Your task to perform on an android device: Go to privacy settings Image 0: 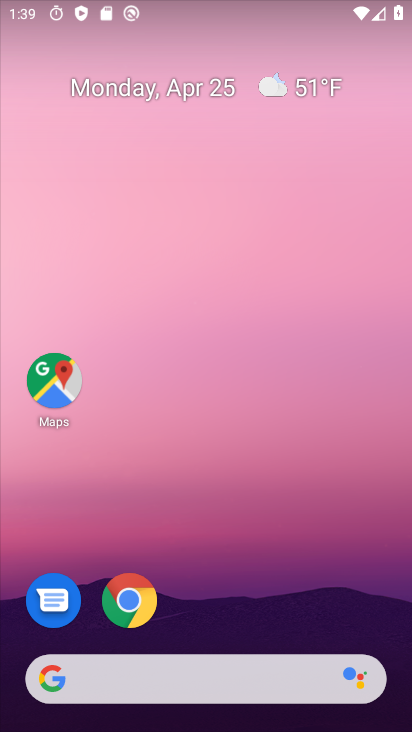
Step 0: drag from (145, 665) to (238, 145)
Your task to perform on an android device: Go to privacy settings Image 1: 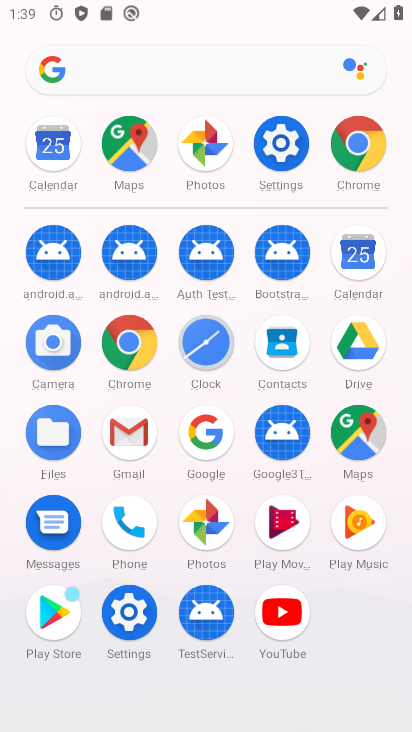
Step 1: click (281, 154)
Your task to perform on an android device: Go to privacy settings Image 2: 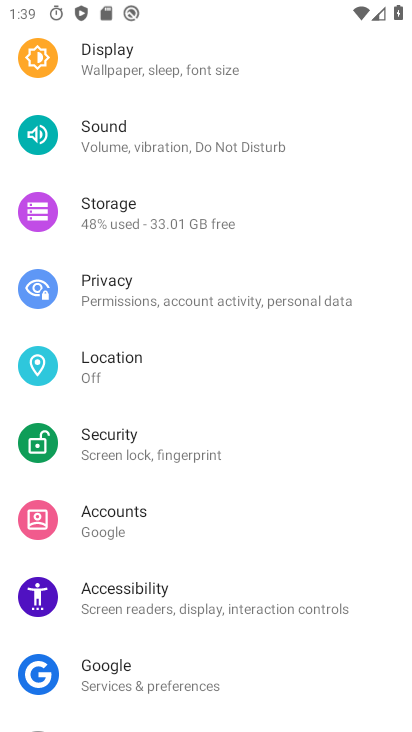
Step 2: drag from (193, 530) to (265, 137)
Your task to perform on an android device: Go to privacy settings Image 3: 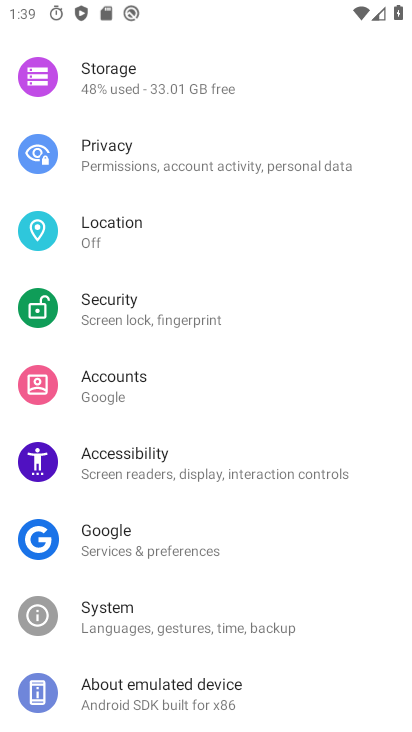
Step 3: drag from (185, 601) to (288, 208)
Your task to perform on an android device: Go to privacy settings Image 4: 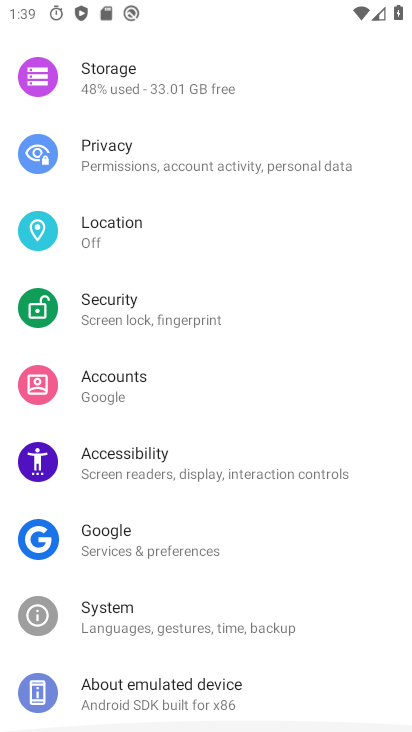
Step 4: drag from (303, 192) to (232, 487)
Your task to perform on an android device: Go to privacy settings Image 5: 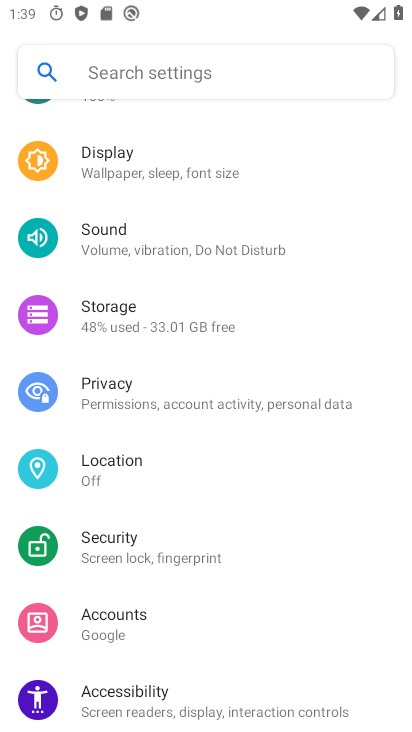
Step 5: click (106, 368)
Your task to perform on an android device: Go to privacy settings Image 6: 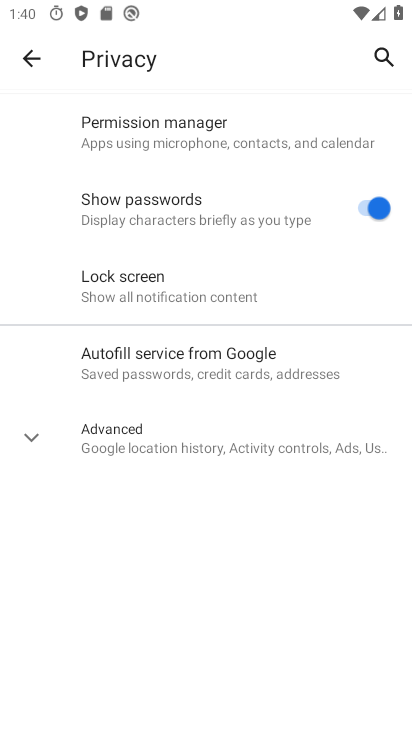
Step 6: task complete